Your task to perform on an android device: Open the web browser Image 0: 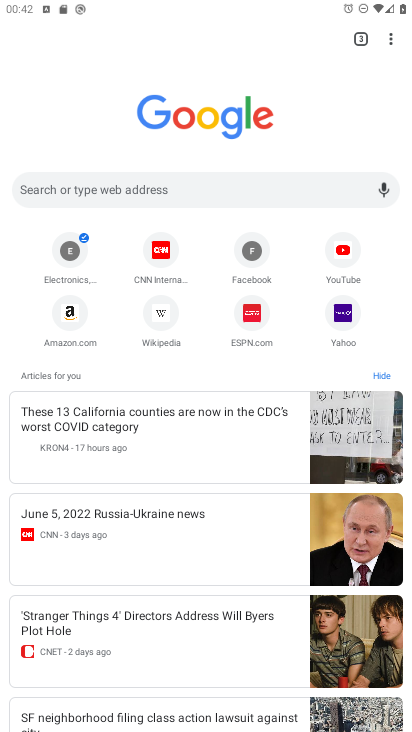
Step 0: press home button
Your task to perform on an android device: Open the web browser Image 1: 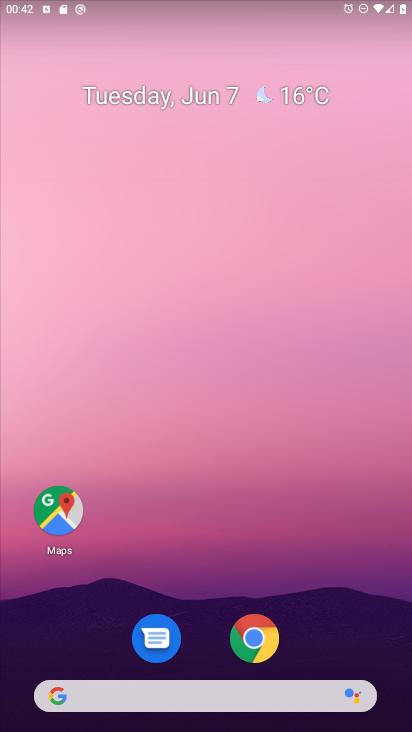
Step 1: drag from (203, 708) to (277, 302)
Your task to perform on an android device: Open the web browser Image 2: 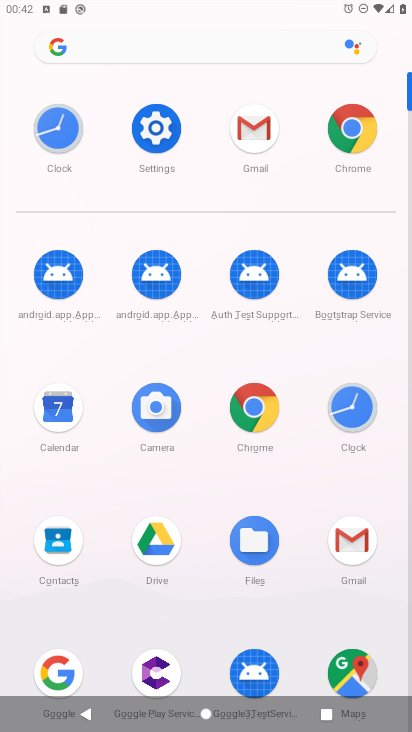
Step 2: click (366, 140)
Your task to perform on an android device: Open the web browser Image 3: 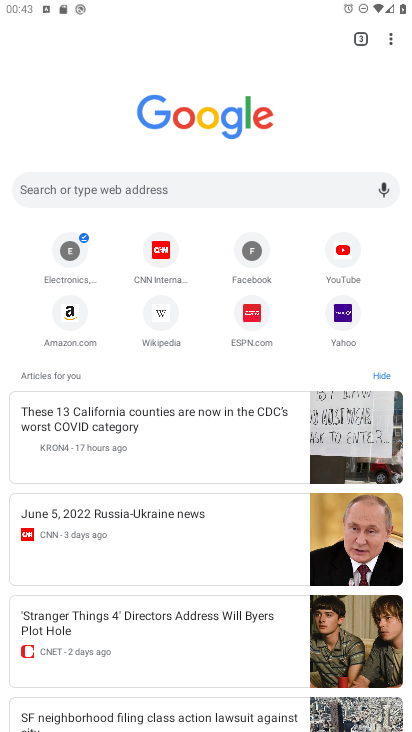
Step 3: click (200, 192)
Your task to perform on an android device: Open the web browser Image 4: 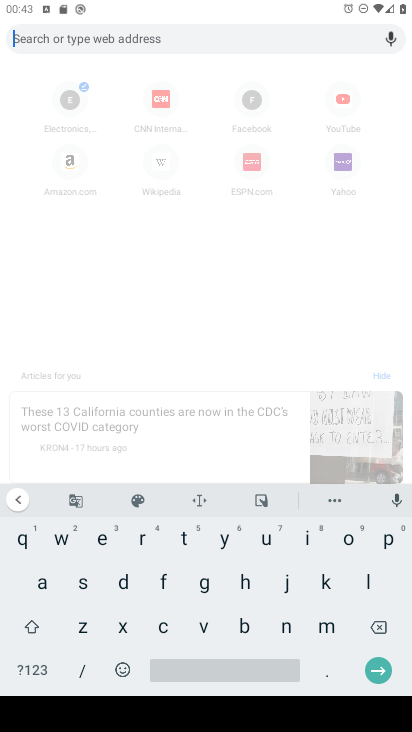
Step 4: task complete